Your task to perform on an android device: toggle pop-ups in chrome Image 0: 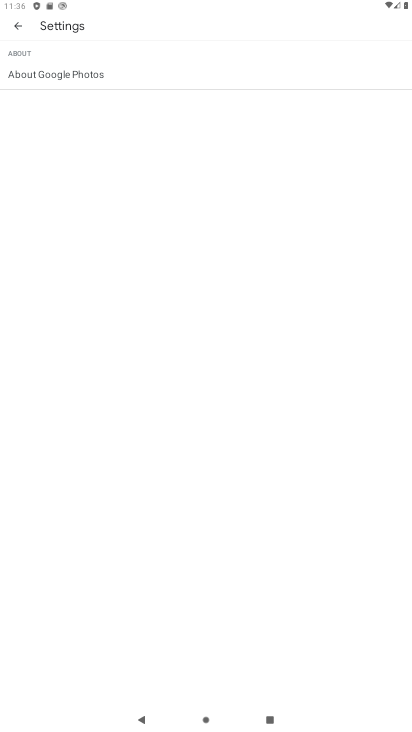
Step 0: press home button
Your task to perform on an android device: toggle pop-ups in chrome Image 1: 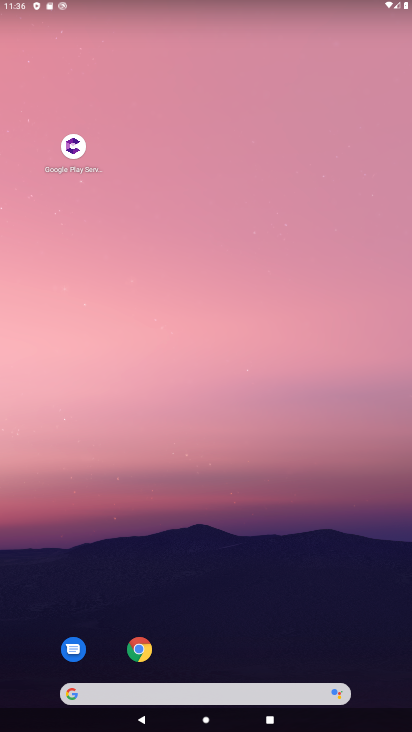
Step 1: click (142, 651)
Your task to perform on an android device: toggle pop-ups in chrome Image 2: 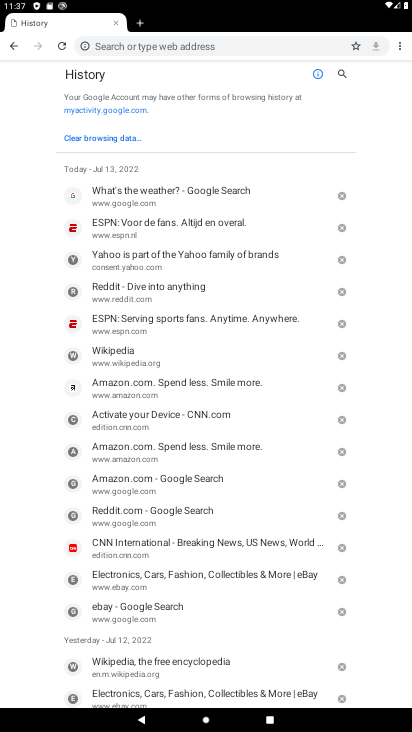
Step 2: click (396, 46)
Your task to perform on an android device: toggle pop-ups in chrome Image 3: 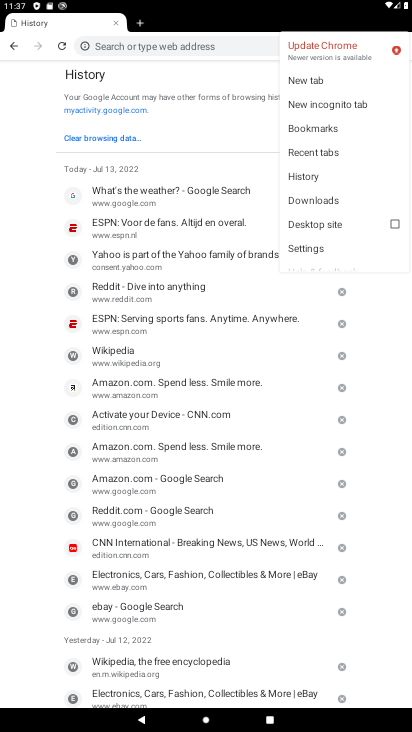
Step 3: click (318, 247)
Your task to perform on an android device: toggle pop-ups in chrome Image 4: 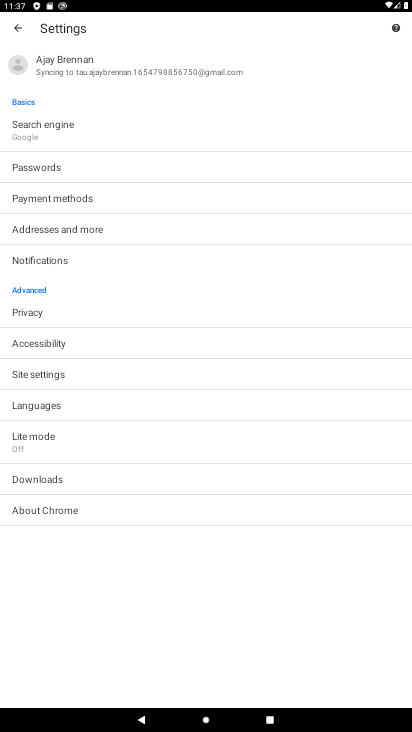
Step 4: click (58, 374)
Your task to perform on an android device: toggle pop-ups in chrome Image 5: 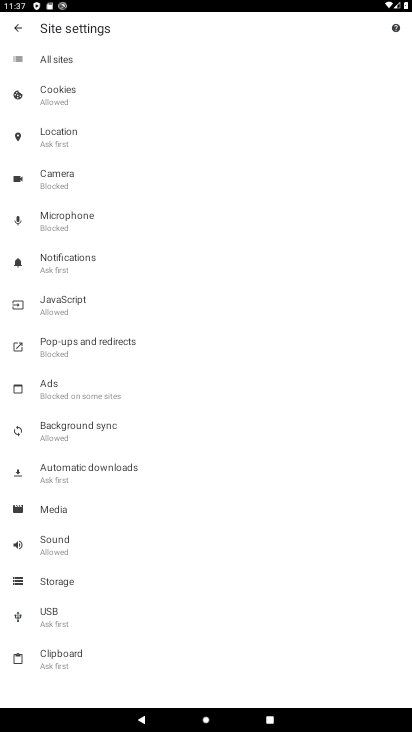
Step 5: click (85, 349)
Your task to perform on an android device: toggle pop-ups in chrome Image 6: 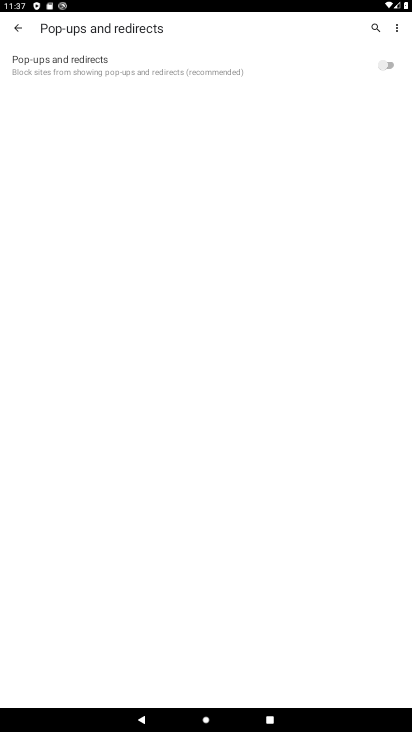
Step 6: click (389, 68)
Your task to perform on an android device: toggle pop-ups in chrome Image 7: 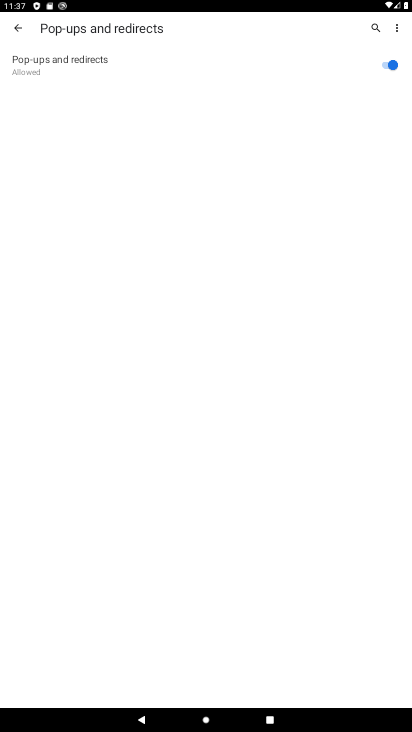
Step 7: task complete